Your task to perform on an android device: set the stopwatch Image 0: 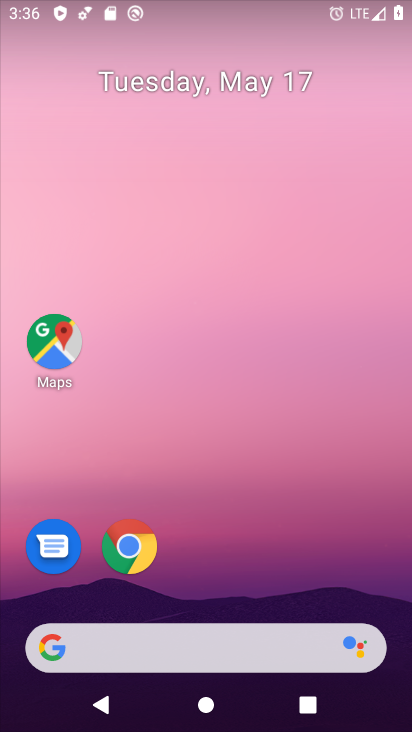
Step 0: press home button
Your task to perform on an android device: set the stopwatch Image 1: 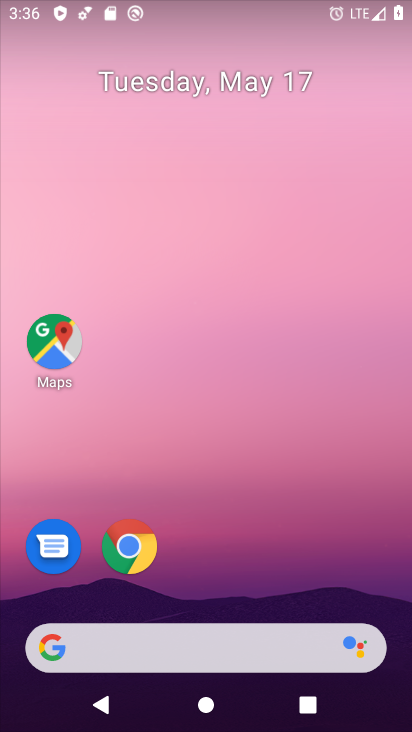
Step 1: drag from (281, 572) to (288, 1)
Your task to perform on an android device: set the stopwatch Image 2: 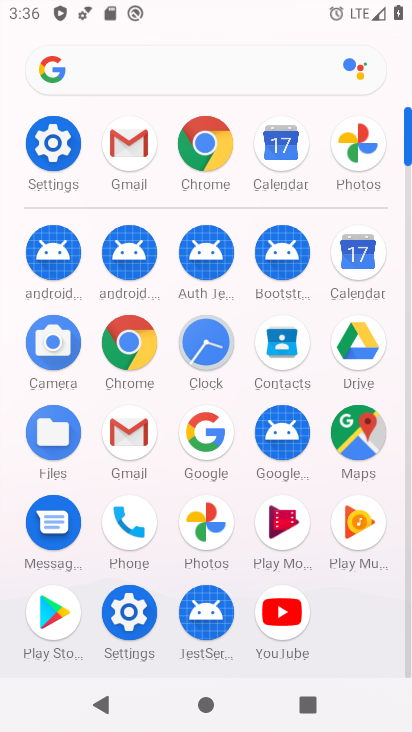
Step 2: click (220, 359)
Your task to perform on an android device: set the stopwatch Image 3: 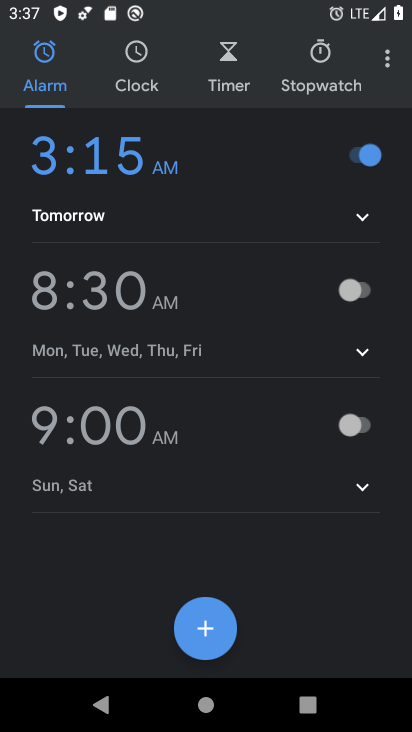
Step 3: click (288, 63)
Your task to perform on an android device: set the stopwatch Image 4: 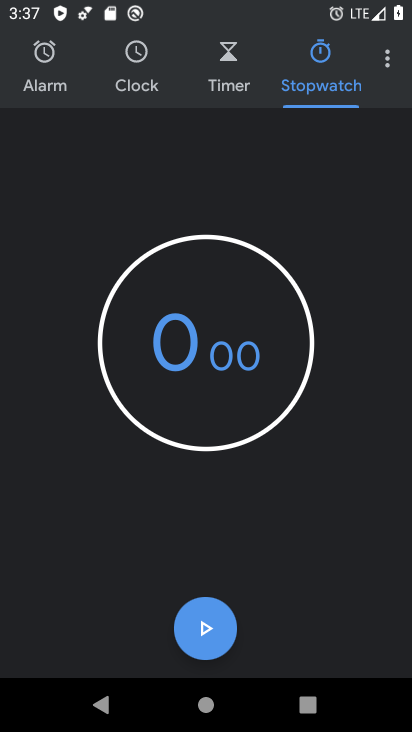
Step 4: click (209, 616)
Your task to perform on an android device: set the stopwatch Image 5: 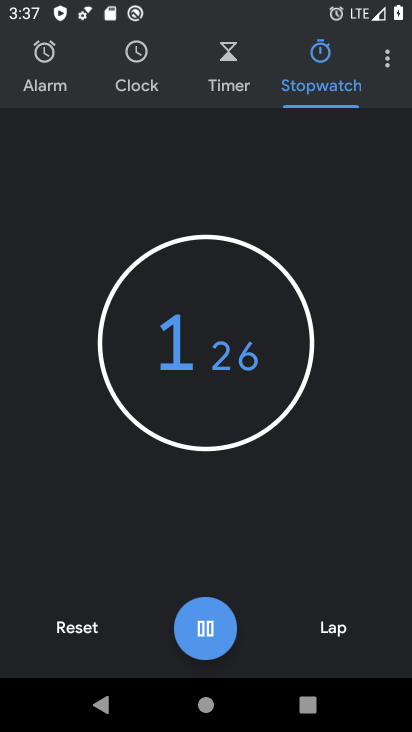
Step 5: task complete